Your task to perform on an android device: Go to internet settings Image 0: 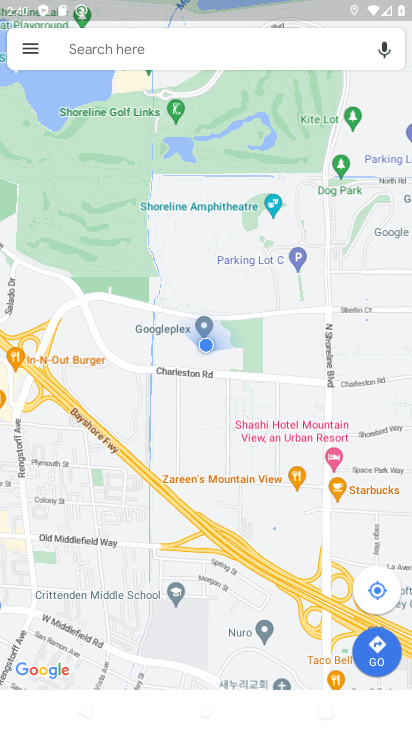
Step 0: press back button
Your task to perform on an android device: Go to internet settings Image 1: 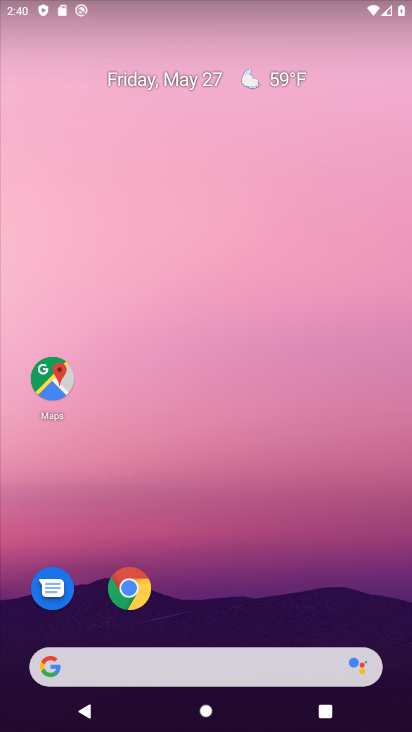
Step 1: drag from (261, 666) to (186, 147)
Your task to perform on an android device: Go to internet settings Image 2: 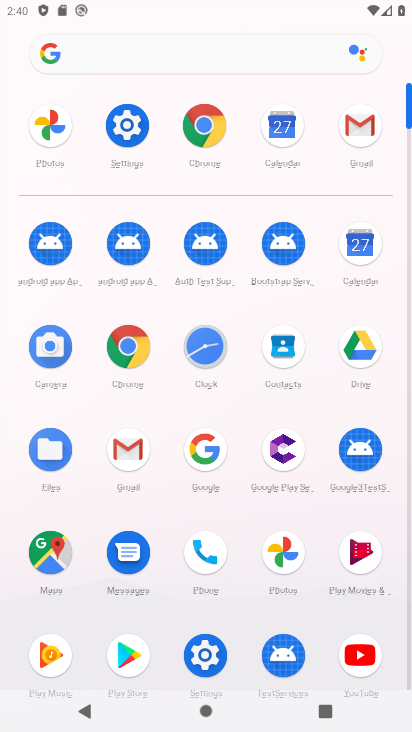
Step 2: click (118, 117)
Your task to perform on an android device: Go to internet settings Image 3: 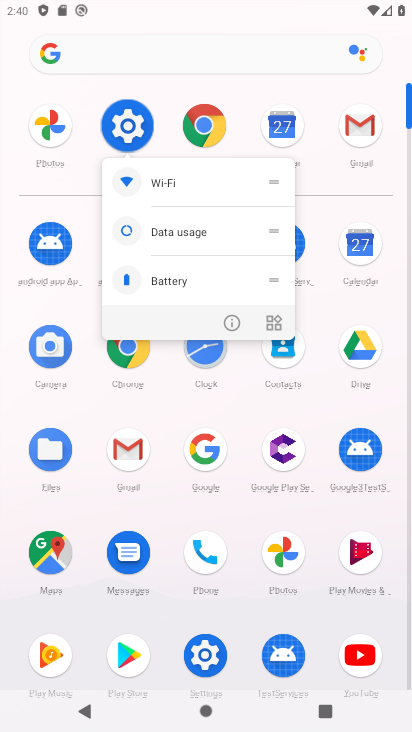
Step 3: click (119, 116)
Your task to perform on an android device: Go to internet settings Image 4: 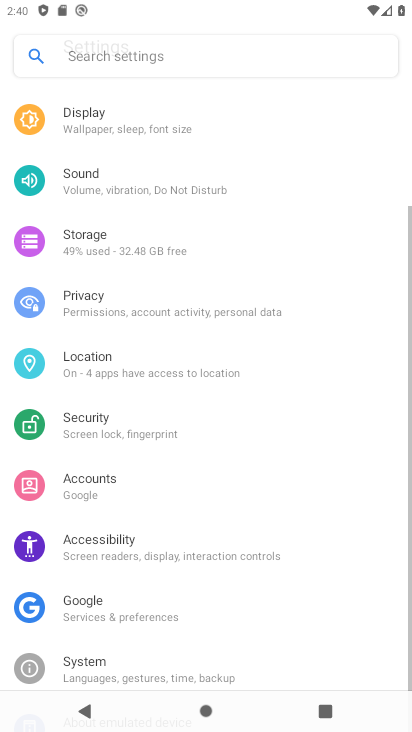
Step 4: click (119, 116)
Your task to perform on an android device: Go to internet settings Image 5: 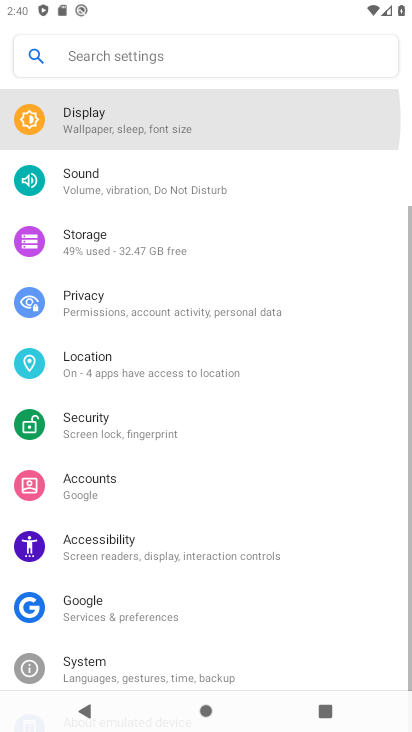
Step 5: click (120, 116)
Your task to perform on an android device: Go to internet settings Image 6: 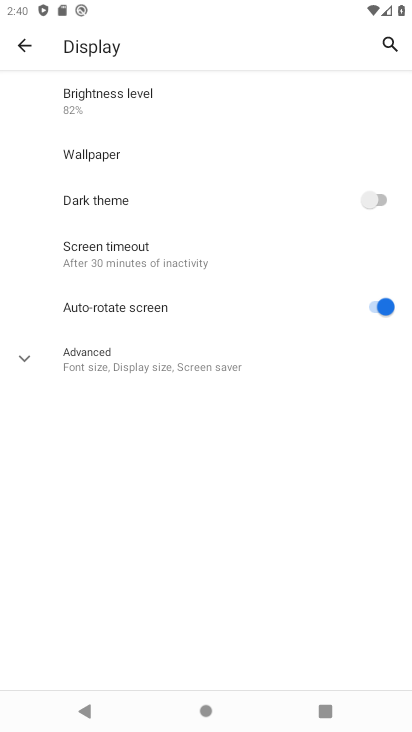
Step 6: click (23, 44)
Your task to perform on an android device: Go to internet settings Image 7: 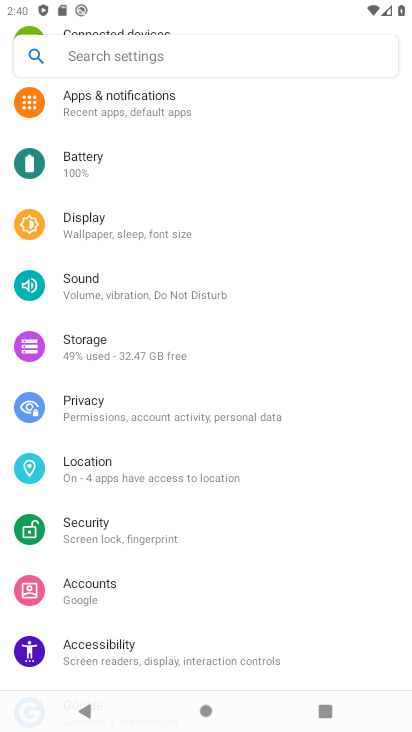
Step 7: drag from (116, 107) to (140, 513)
Your task to perform on an android device: Go to internet settings Image 8: 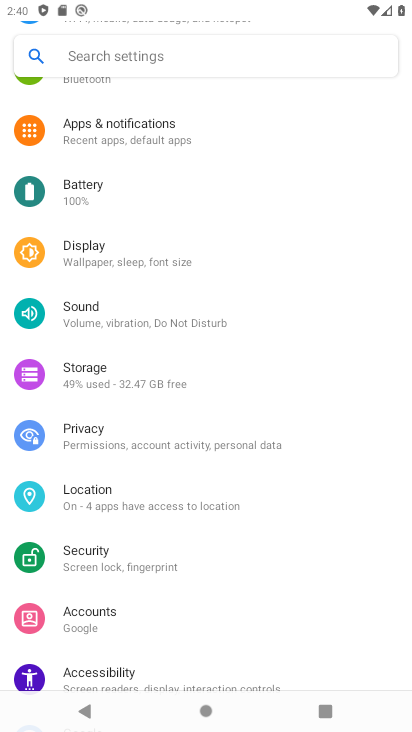
Step 8: drag from (176, 462) to (191, 556)
Your task to perform on an android device: Go to internet settings Image 9: 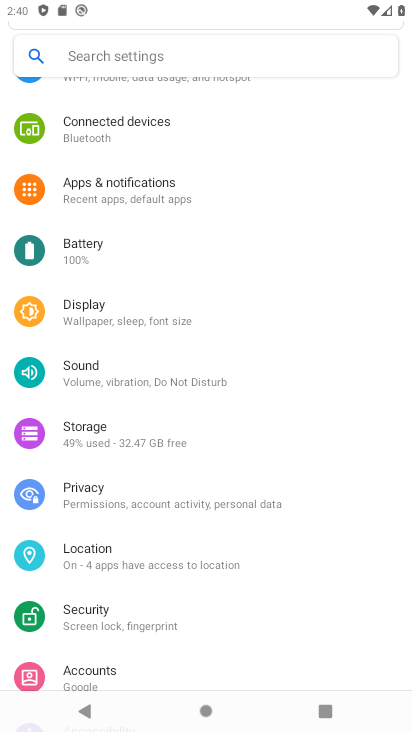
Step 9: drag from (134, 450) to (154, 584)
Your task to perform on an android device: Go to internet settings Image 10: 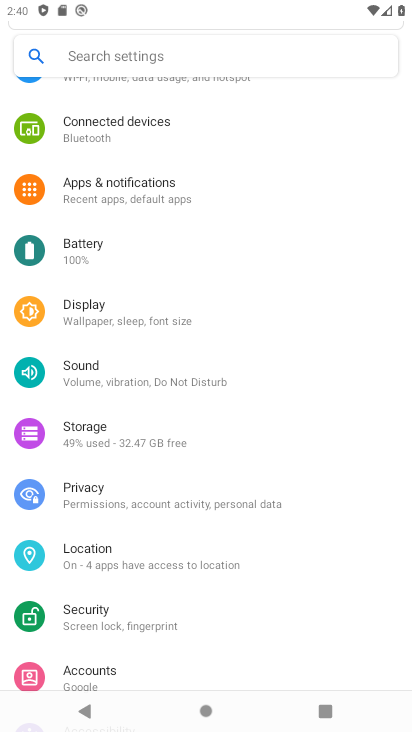
Step 10: drag from (194, 310) to (203, 579)
Your task to perform on an android device: Go to internet settings Image 11: 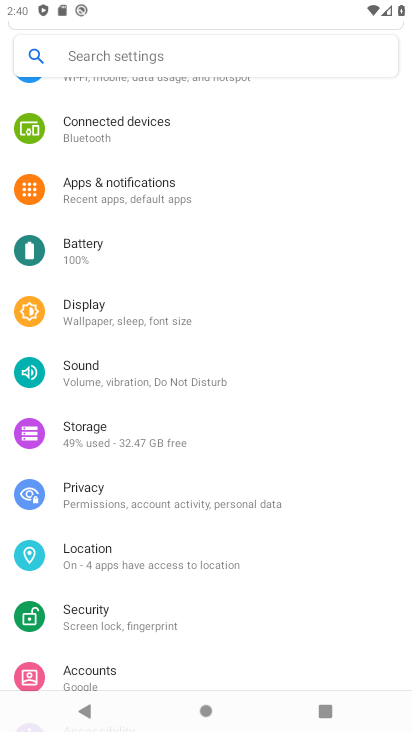
Step 11: drag from (133, 159) to (138, 549)
Your task to perform on an android device: Go to internet settings Image 12: 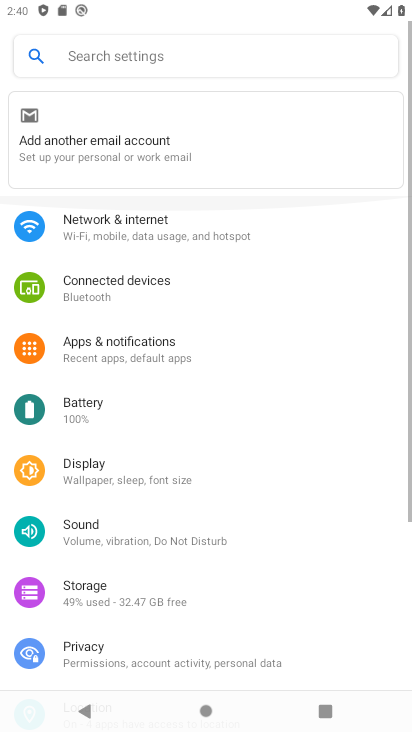
Step 12: drag from (133, 133) to (134, 526)
Your task to perform on an android device: Go to internet settings Image 13: 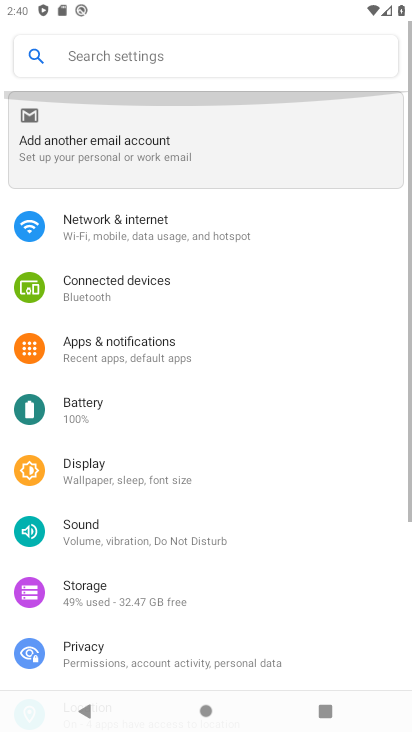
Step 13: drag from (89, 293) to (145, 658)
Your task to perform on an android device: Go to internet settings Image 14: 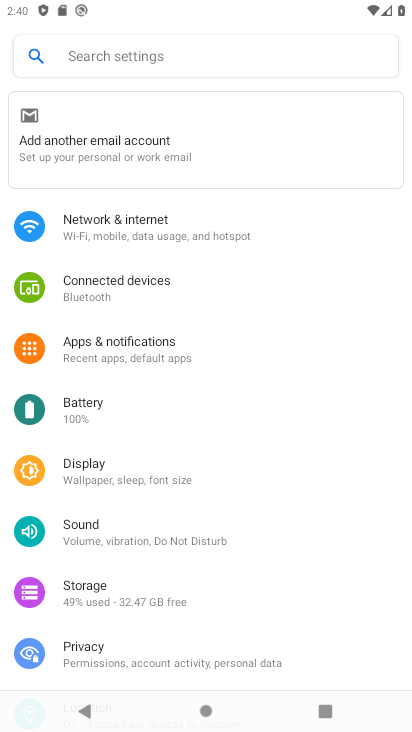
Step 14: click (124, 230)
Your task to perform on an android device: Go to internet settings Image 15: 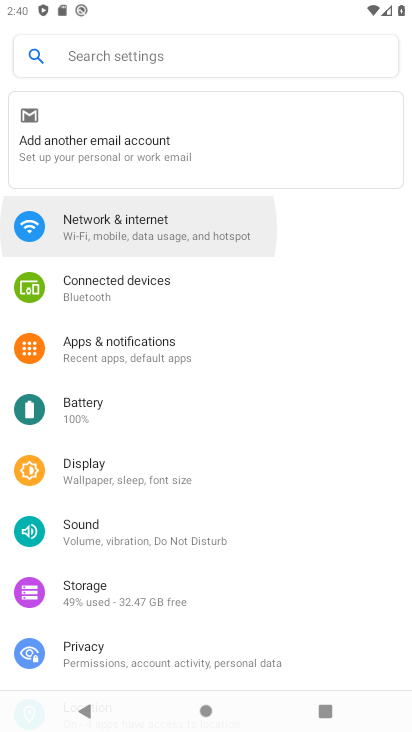
Step 15: click (124, 230)
Your task to perform on an android device: Go to internet settings Image 16: 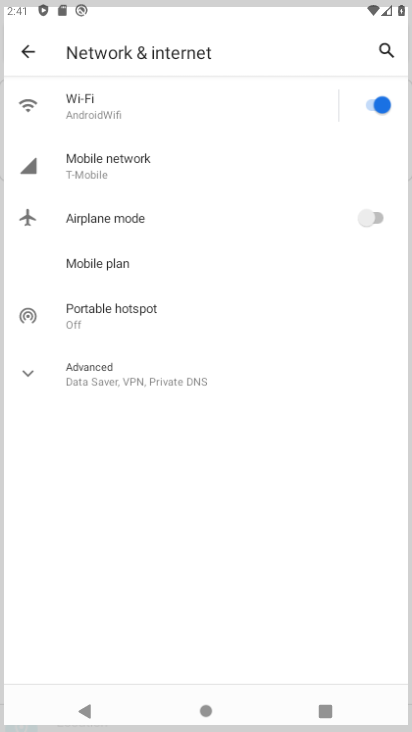
Step 16: click (124, 230)
Your task to perform on an android device: Go to internet settings Image 17: 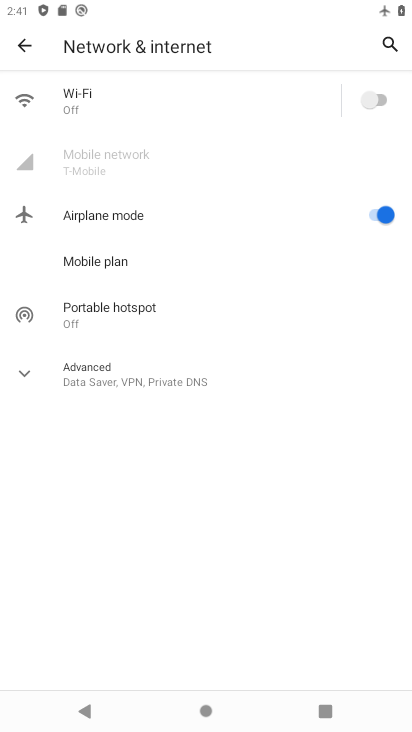
Step 17: click (383, 216)
Your task to perform on an android device: Go to internet settings Image 18: 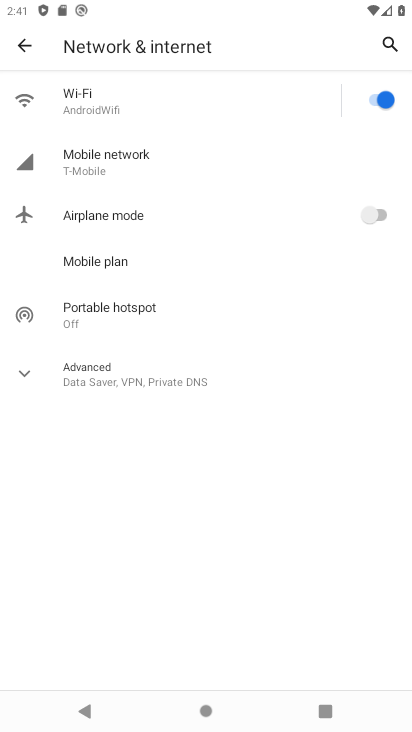
Step 18: click (382, 209)
Your task to perform on an android device: Go to internet settings Image 19: 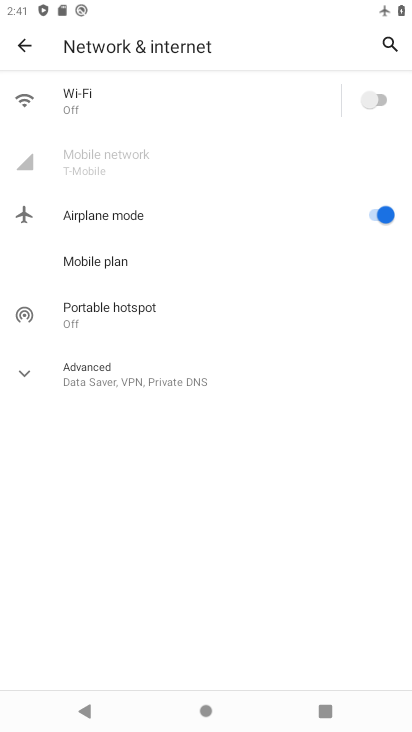
Step 19: click (388, 209)
Your task to perform on an android device: Go to internet settings Image 20: 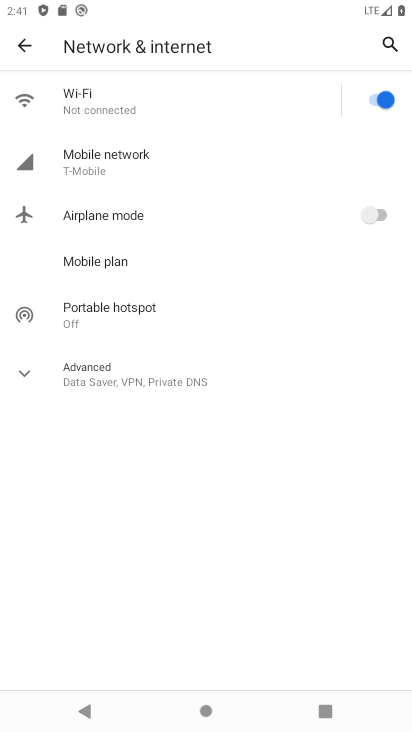
Step 20: task complete